Your task to perform on an android device: toggle location history Image 0: 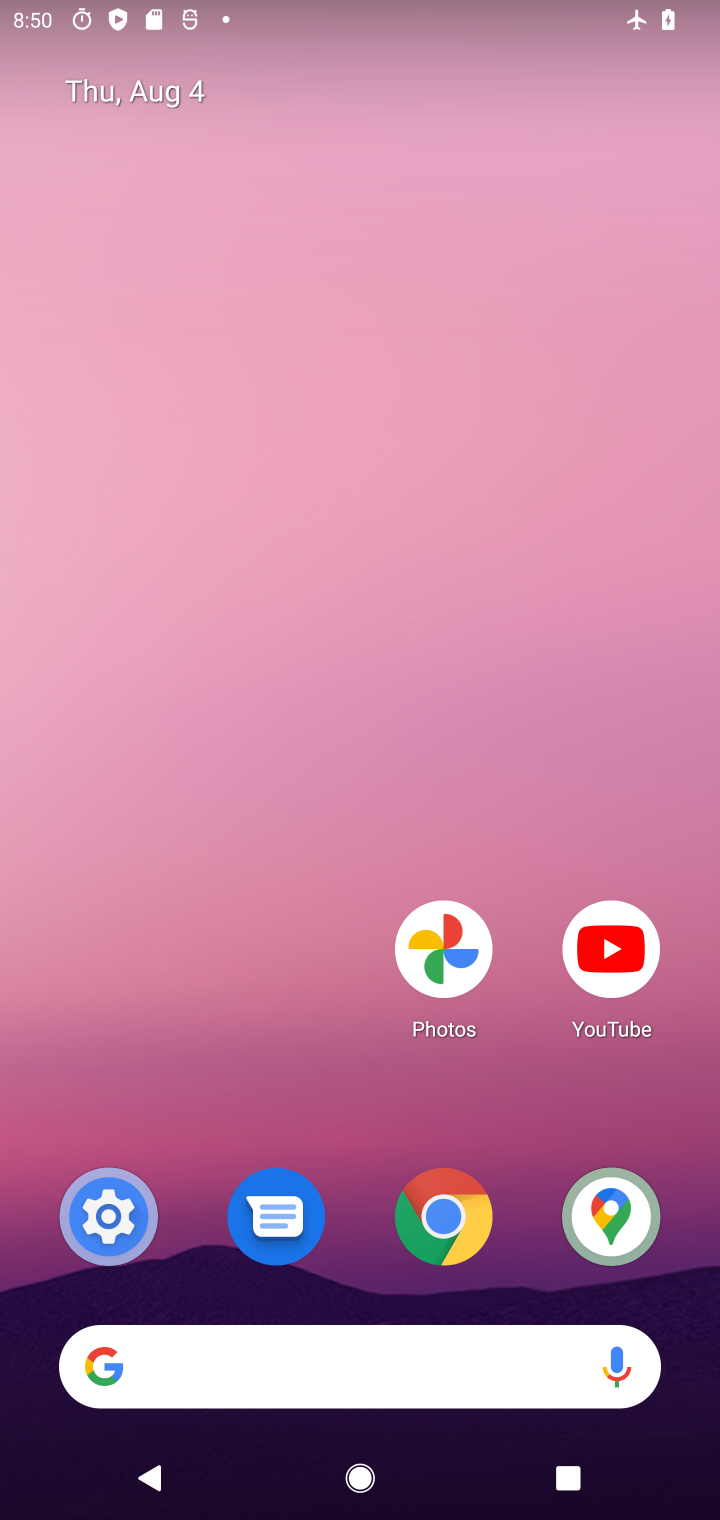
Step 0: drag from (369, 1024) to (362, 21)
Your task to perform on an android device: toggle location history Image 1: 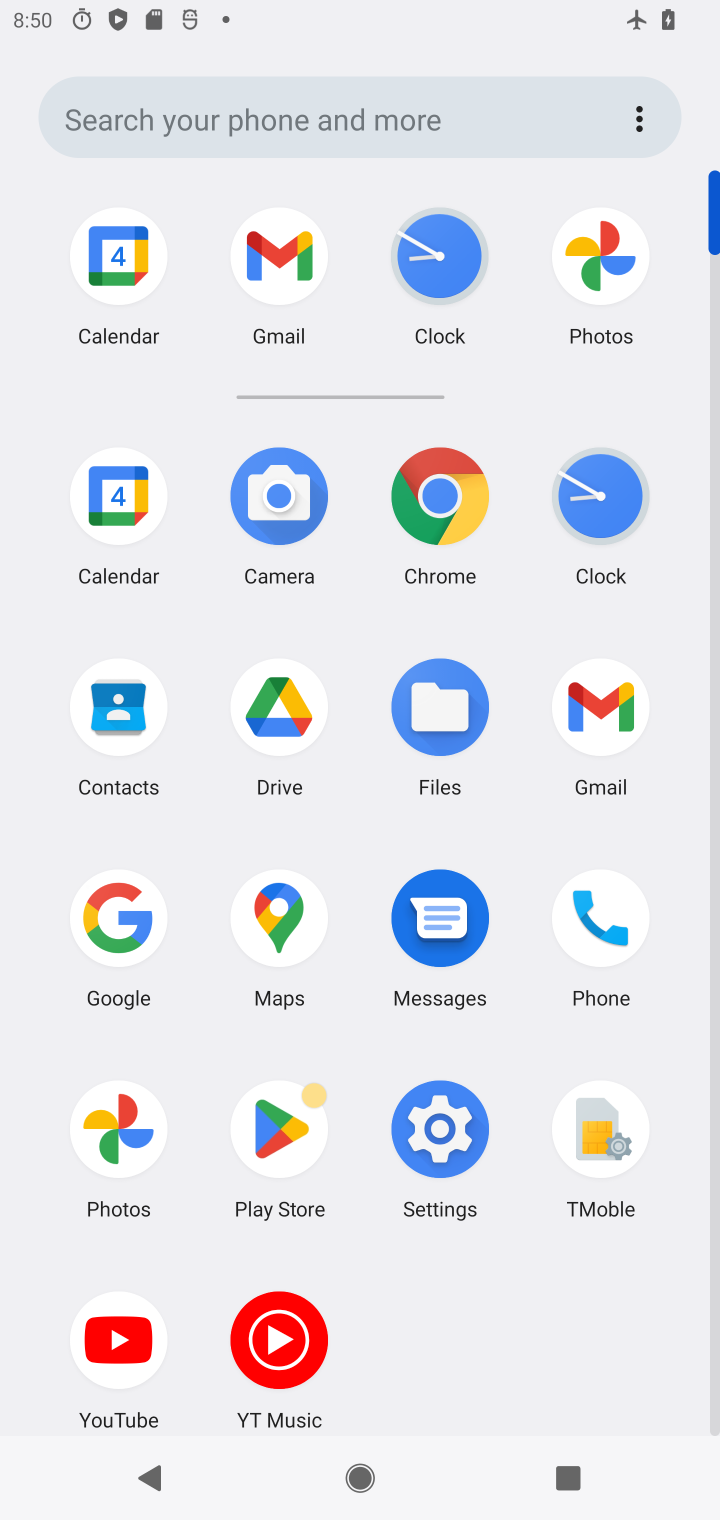
Step 1: click (437, 1143)
Your task to perform on an android device: toggle location history Image 2: 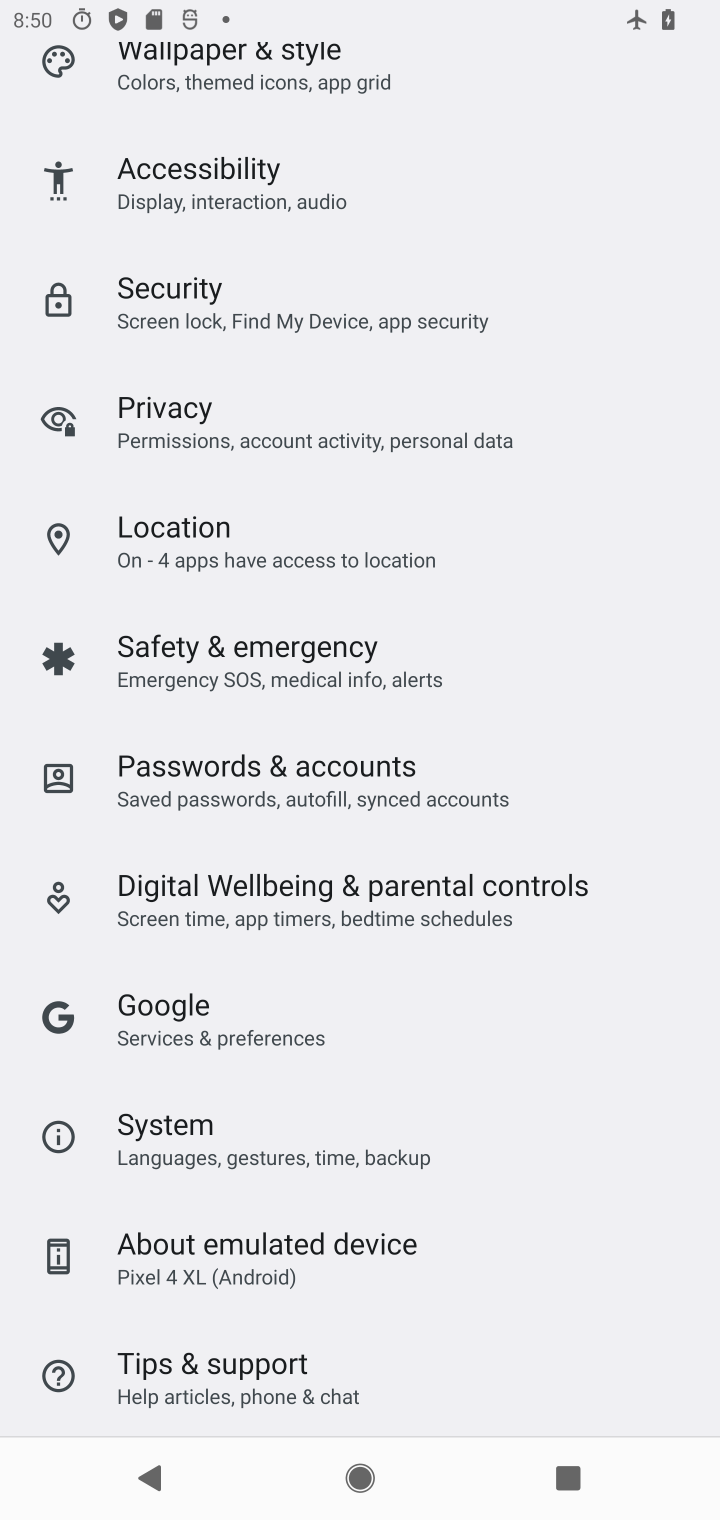
Step 2: click (188, 517)
Your task to perform on an android device: toggle location history Image 3: 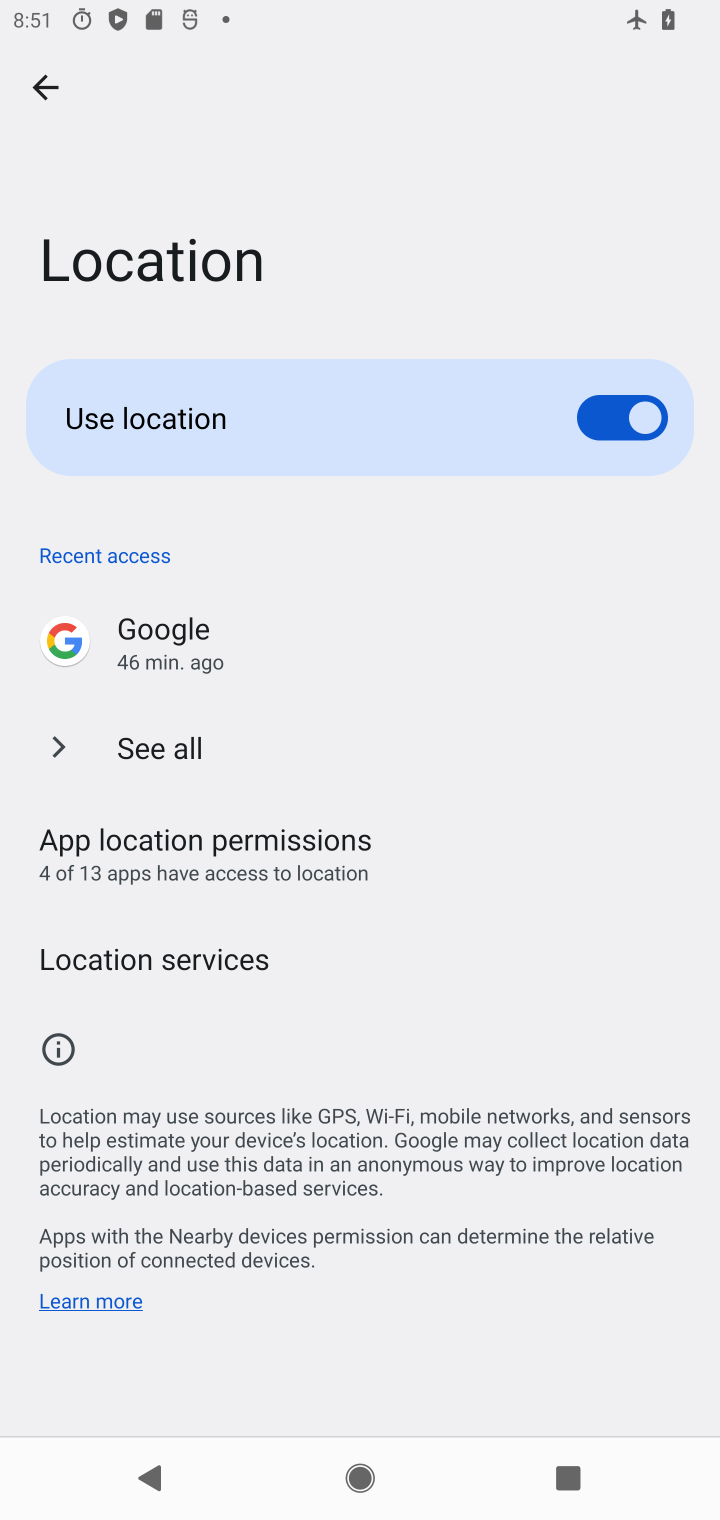
Step 3: click (171, 961)
Your task to perform on an android device: toggle location history Image 4: 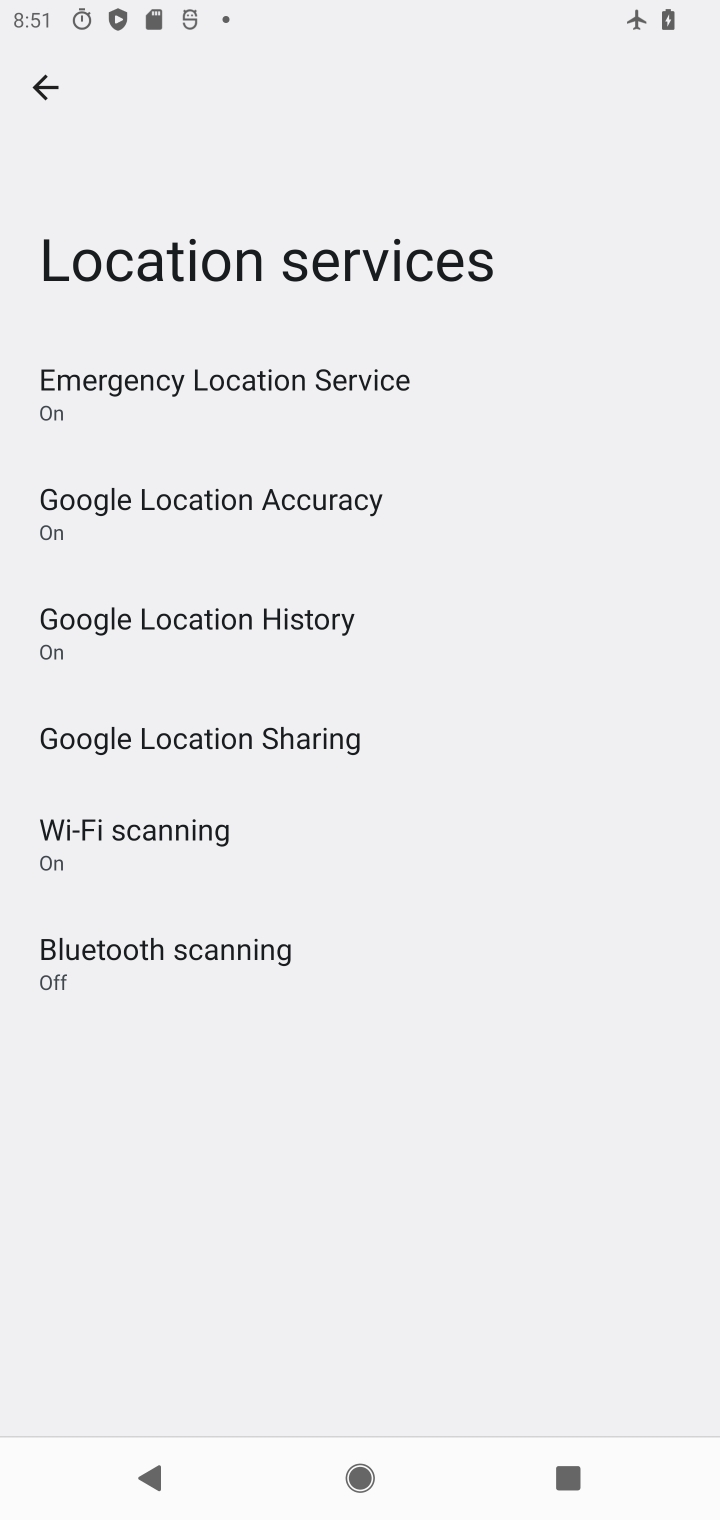
Step 4: click (221, 617)
Your task to perform on an android device: toggle location history Image 5: 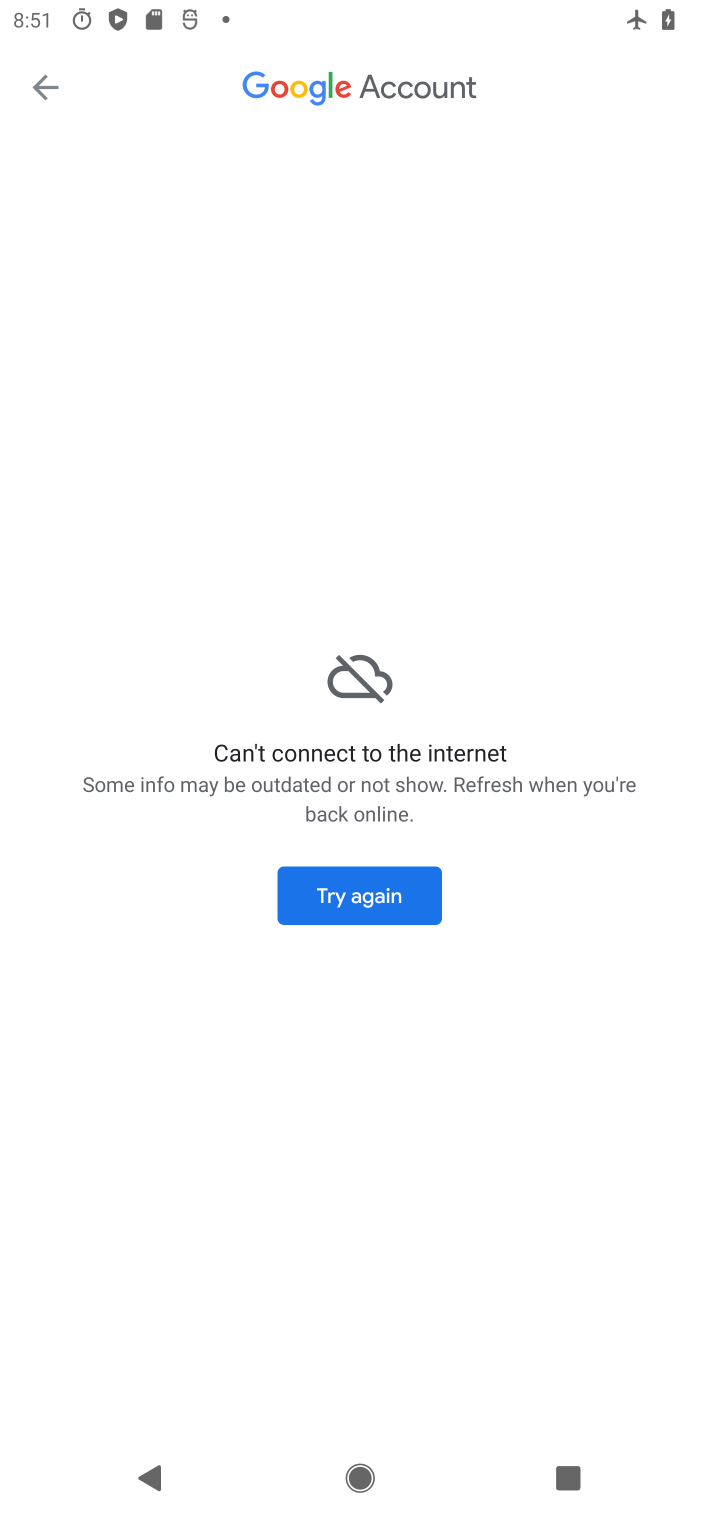
Step 5: task complete